Your task to perform on an android device: turn on improve location accuracy Image 0: 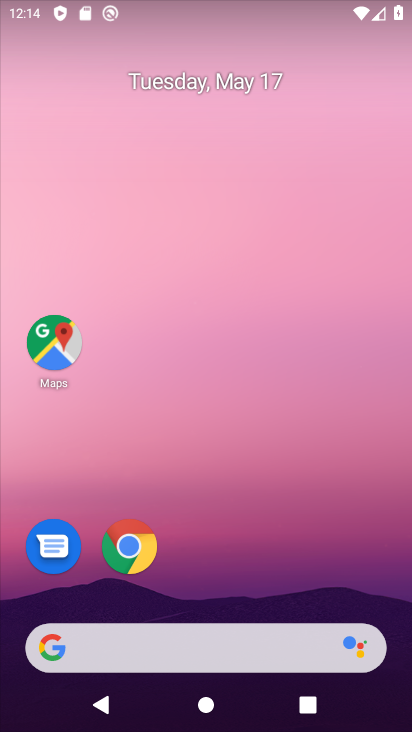
Step 0: drag from (207, 574) to (213, 212)
Your task to perform on an android device: turn on improve location accuracy Image 1: 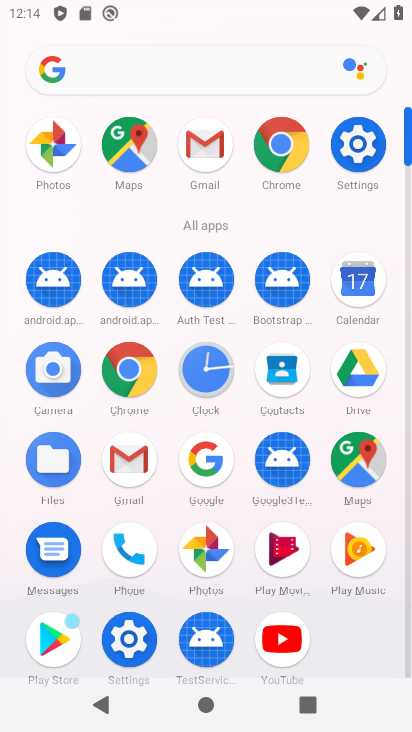
Step 1: click (357, 135)
Your task to perform on an android device: turn on improve location accuracy Image 2: 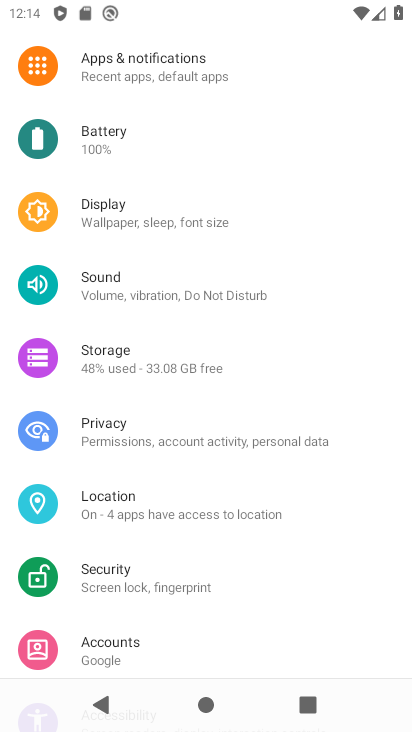
Step 2: click (168, 515)
Your task to perform on an android device: turn on improve location accuracy Image 3: 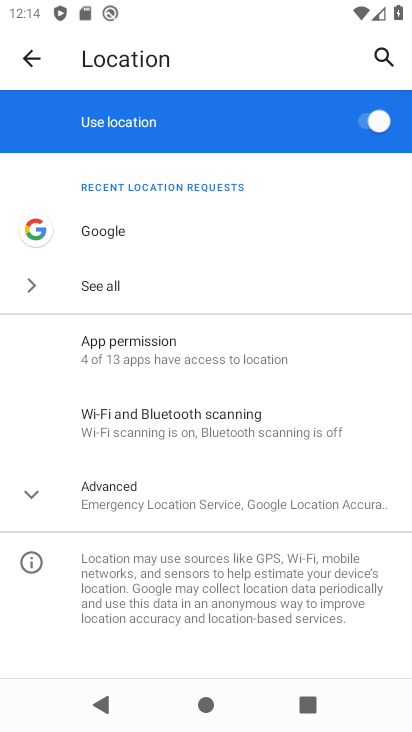
Step 3: click (161, 476)
Your task to perform on an android device: turn on improve location accuracy Image 4: 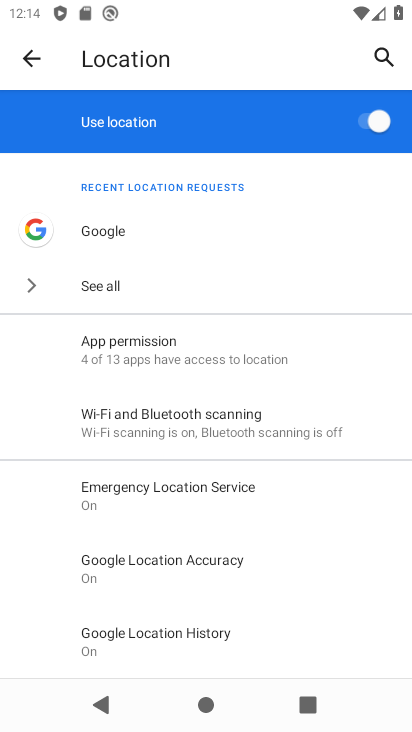
Step 4: click (191, 563)
Your task to perform on an android device: turn on improve location accuracy Image 5: 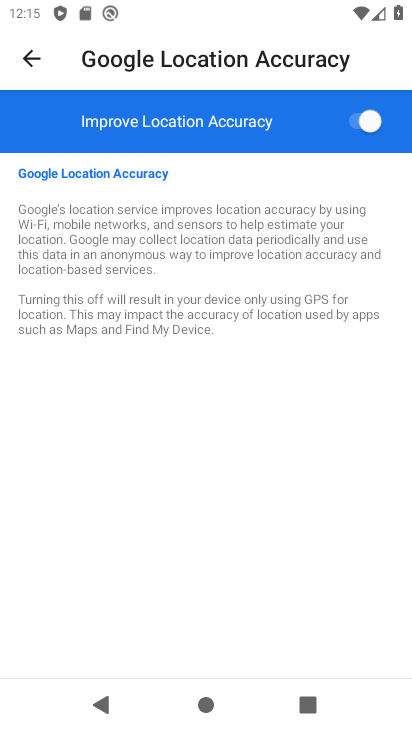
Step 5: task complete